Your task to perform on an android device: turn vacation reply on in the gmail app Image 0: 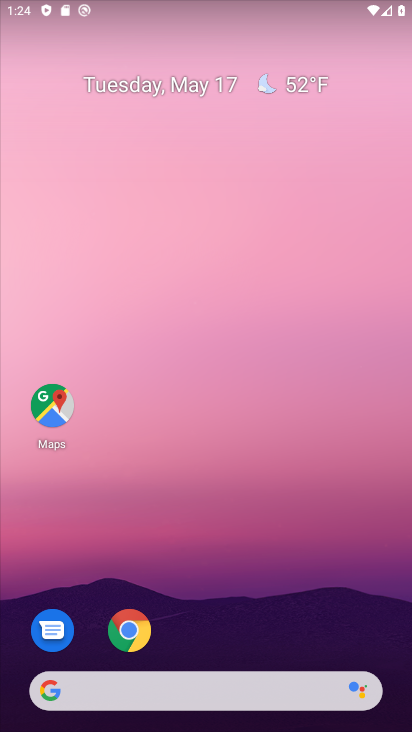
Step 0: drag from (250, 621) to (334, 117)
Your task to perform on an android device: turn vacation reply on in the gmail app Image 1: 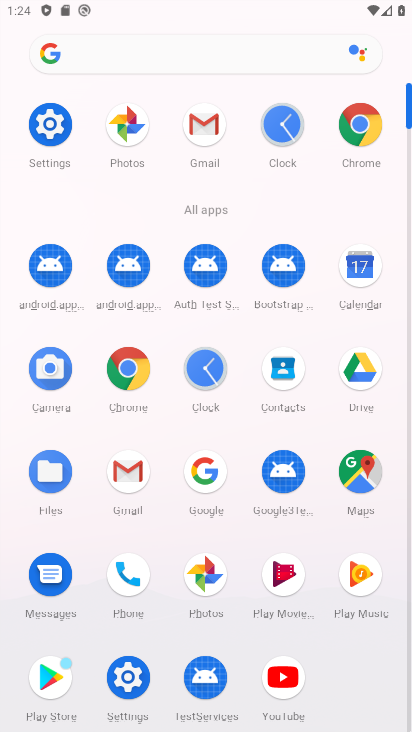
Step 1: click (136, 474)
Your task to perform on an android device: turn vacation reply on in the gmail app Image 2: 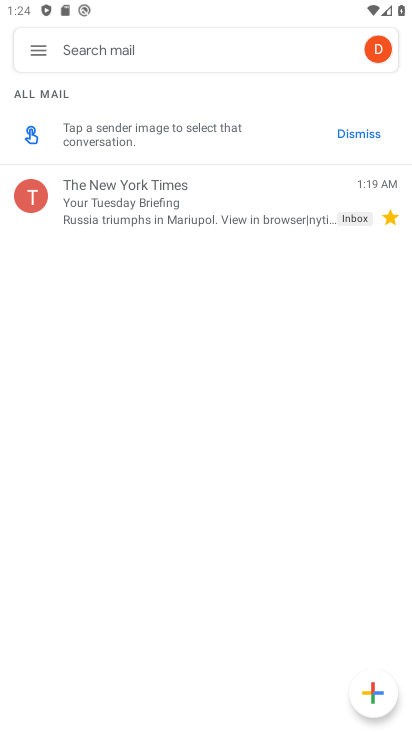
Step 2: click (30, 50)
Your task to perform on an android device: turn vacation reply on in the gmail app Image 3: 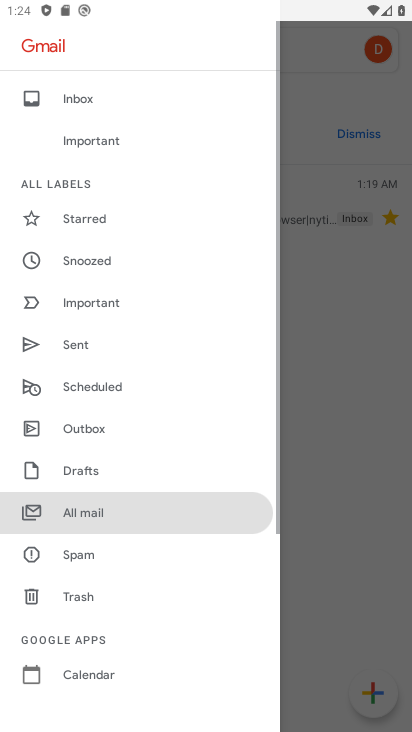
Step 3: drag from (99, 613) to (191, 66)
Your task to perform on an android device: turn vacation reply on in the gmail app Image 4: 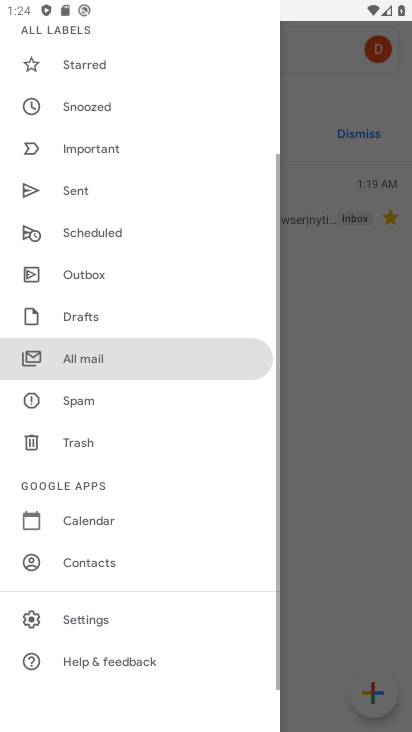
Step 4: click (78, 615)
Your task to perform on an android device: turn vacation reply on in the gmail app Image 5: 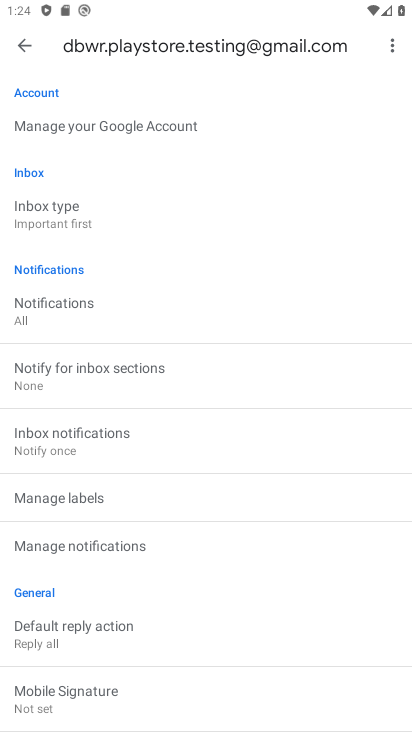
Step 5: drag from (95, 628) to (165, 214)
Your task to perform on an android device: turn vacation reply on in the gmail app Image 6: 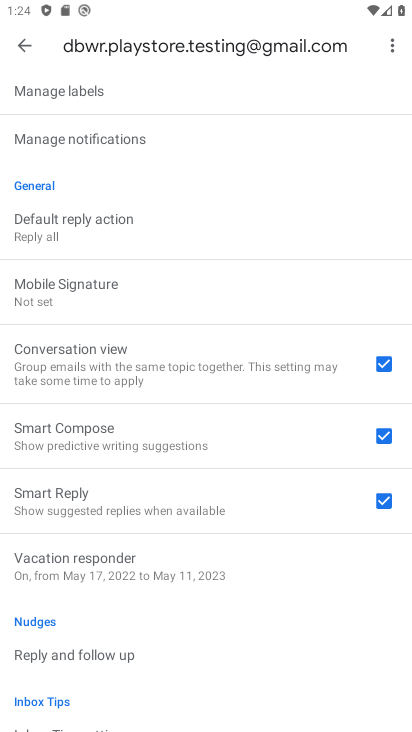
Step 6: click (215, 576)
Your task to perform on an android device: turn vacation reply on in the gmail app Image 7: 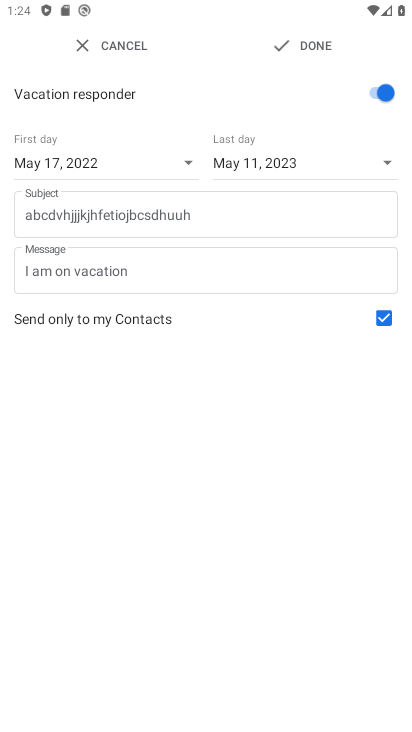
Step 7: task complete